Your task to perform on an android device: move an email to a new category in the gmail app Image 0: 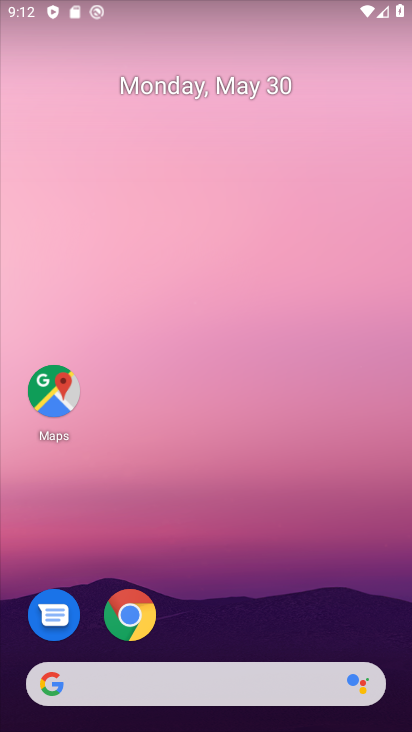
Step 0: drag from (162, 731) to (238, 144)
Your task to perform on an android device: move an email to a new category in the gmail app Image 1: 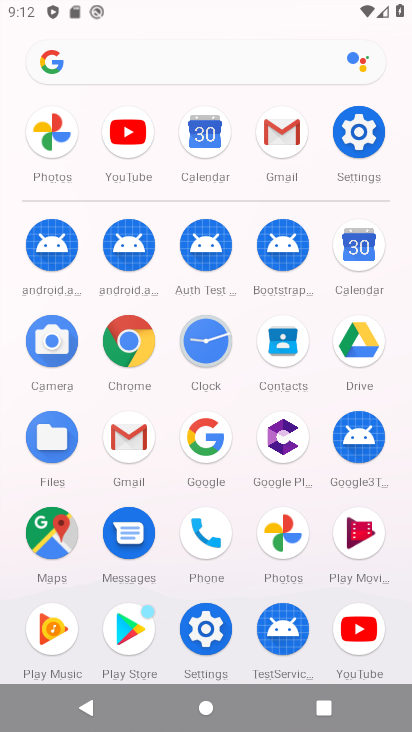
Step 1: click (119, 453)
Your task to perform on an android device: move an email to a new category in the gmail app Image 2: 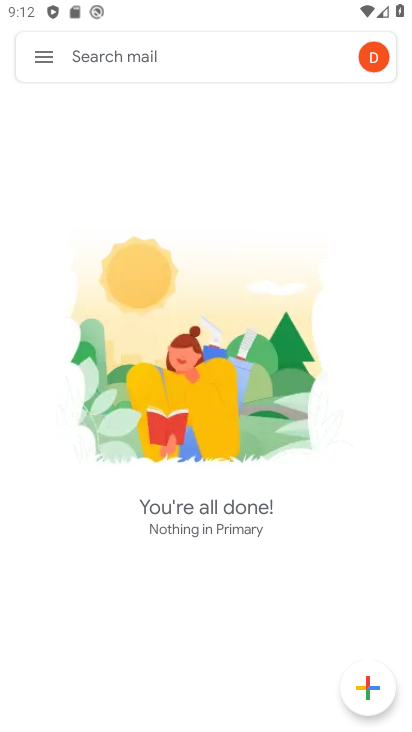
Step 2: click (51, 58)
Your task to perform on an android device: move an email to a new category in the gmail app Image 3: 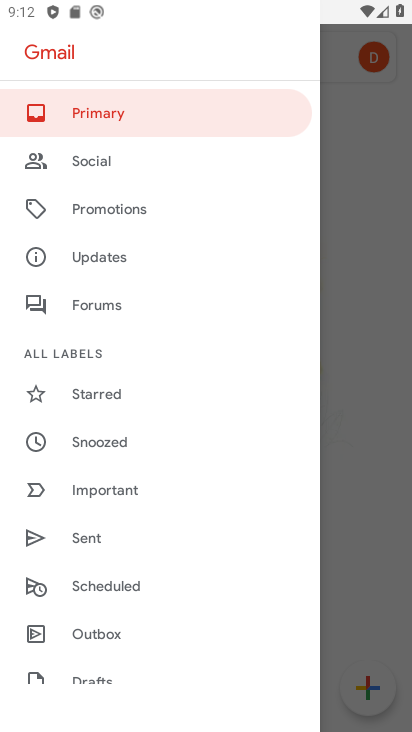
Step 3: drag from (166, 591) to (207, 281)
Your task to perform on an android device: move an email to a new category in the gmail app Image 4: 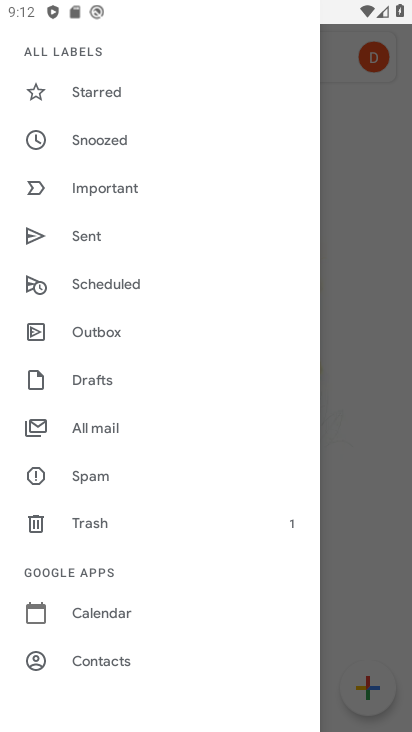
Step 4: click (110, 428)
Your task to perform on an android device: move an email to a new category in the gmail app Image 5: 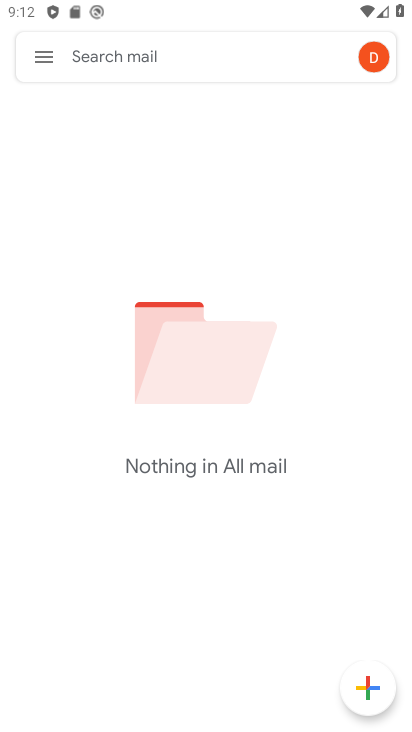
Step 5: click (44, 55)
Your task to perform on an android device: move an email to a new category in the gmail app Image 6: 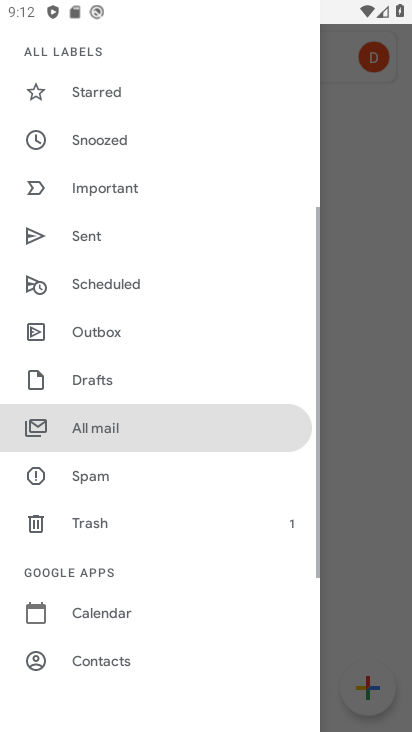
Step 6: drag from (102, 138) to (29, 446)
Your task to perform on an android device: move an email to a new category in the gmail app Image 7: 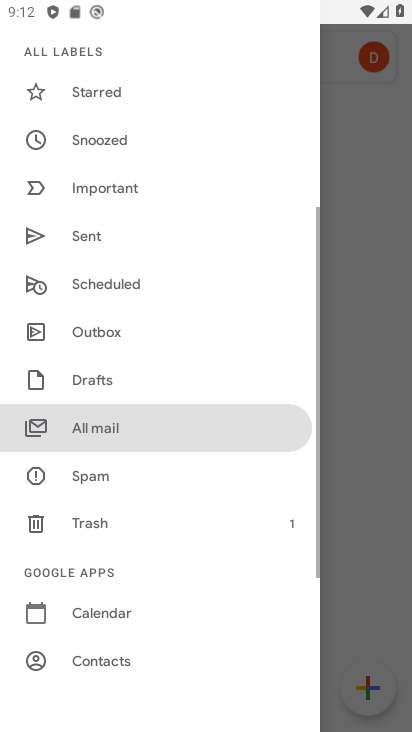
Step 7: drag from (156, 79) to (129, 365)
Your task to perform on an android device: move an email to a new category in the gmail app Image 8: 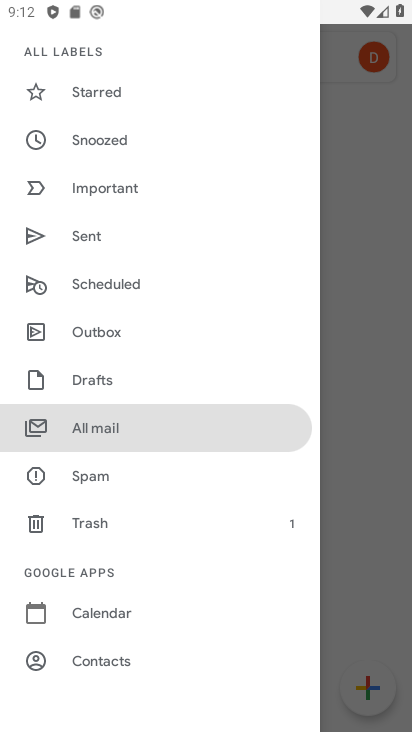
Step 8: click (336, 279)
Your task to perform on an android device: move an email to a new category in the gmail app Image 9: 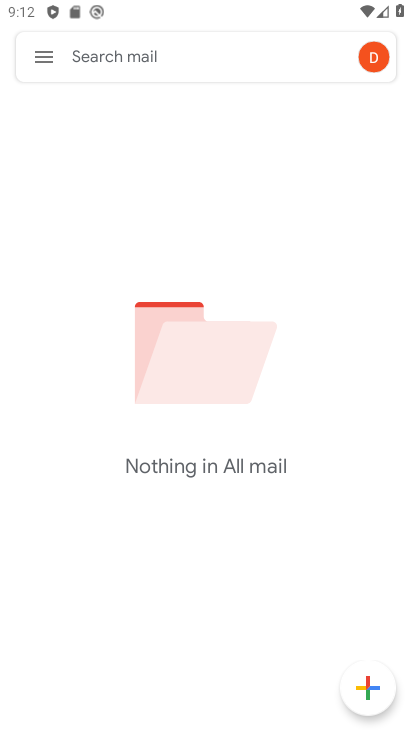
Step 9: task complete